Your task to perform on an android device: Open eBay Image 0: 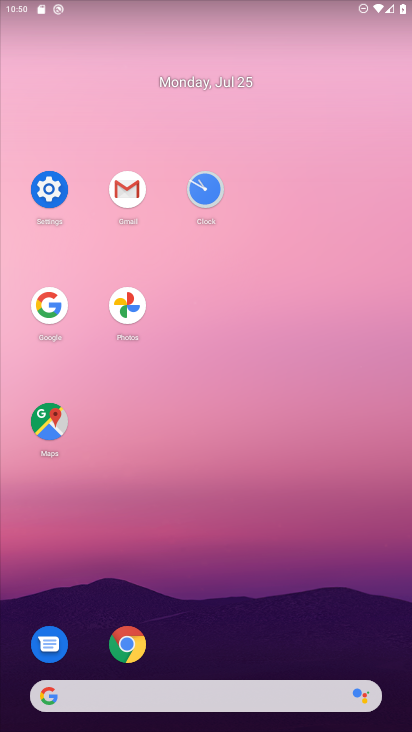
Step 0: click (122, 643)
Your task to perform on an android device: Open eBay Image 1: 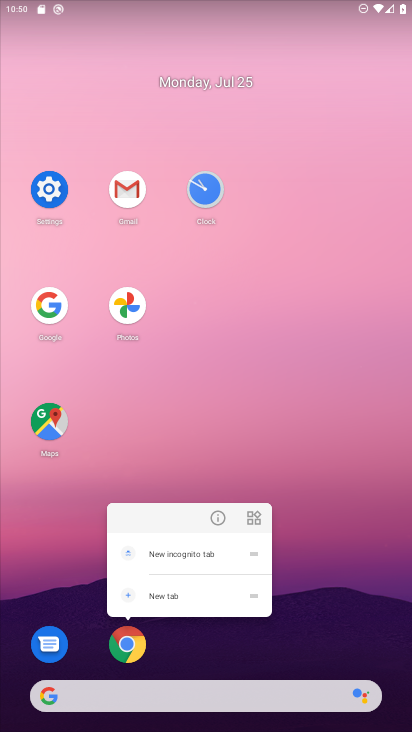
Step 1: click (114, 650)
Your task to perform on an android device: Open eBay Image 2: 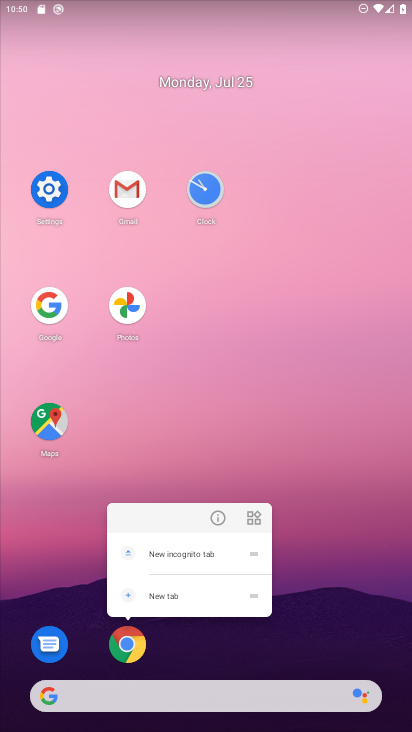
Step 2: click (122, 649)
Your task to perform on an android device: Open eBay Image 3: 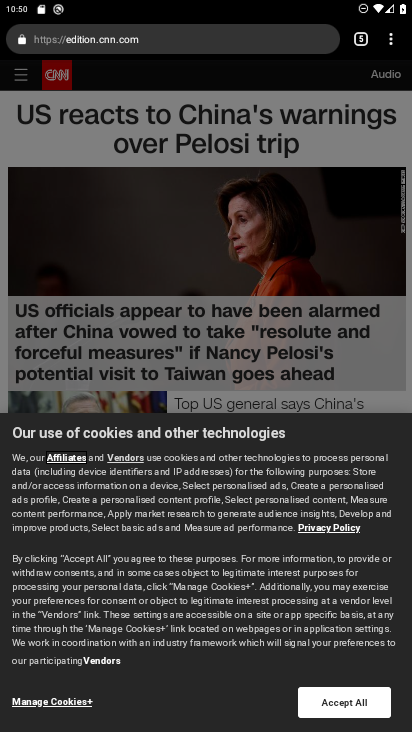
Step 3: click (359, 50)
Your task to perform on an android device: Open eBay Image 4: 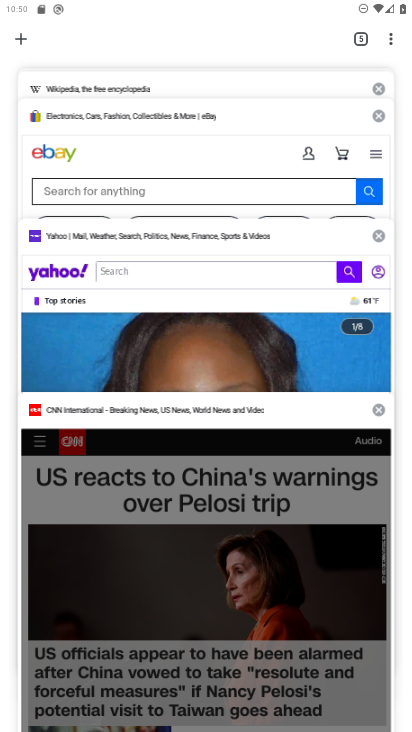
Step 4: click (70, 151)
Your task to perform on an android device: Open eBay Image 5: 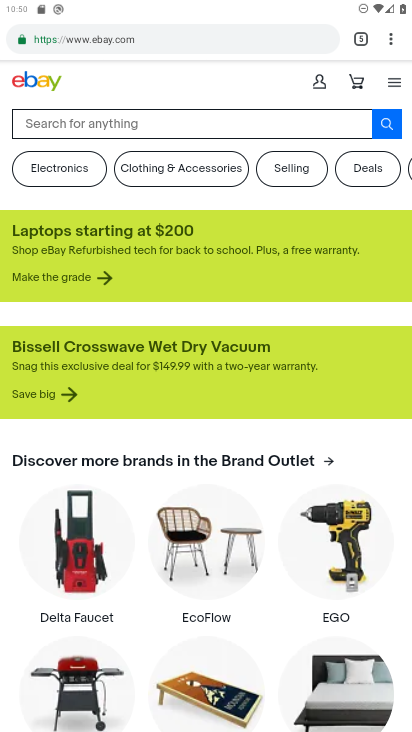
Step 5: task complete